Your task to perform on an android device: Open the stopwatch Image 0: 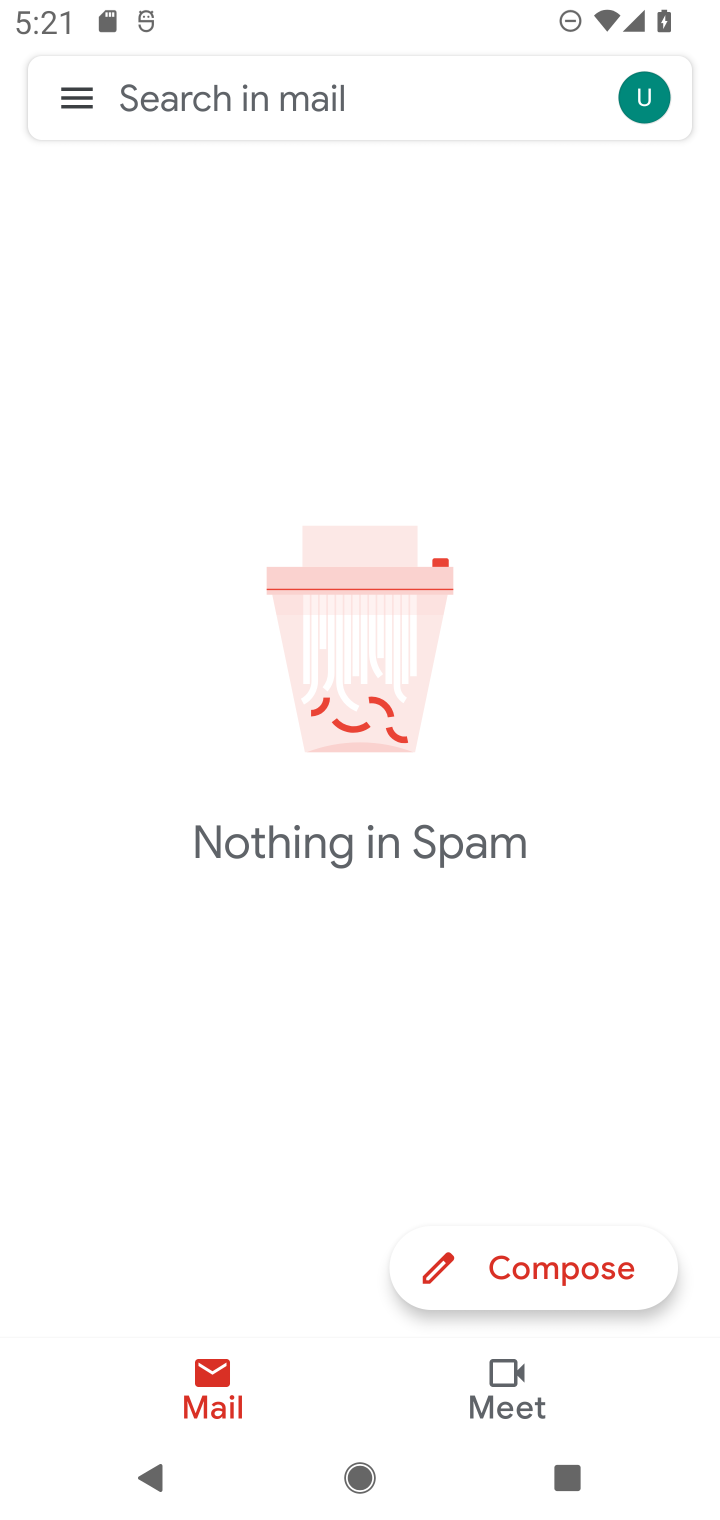
Step 0: press home button
Your task to perform on an android device: Open the stopwatch Image 1: 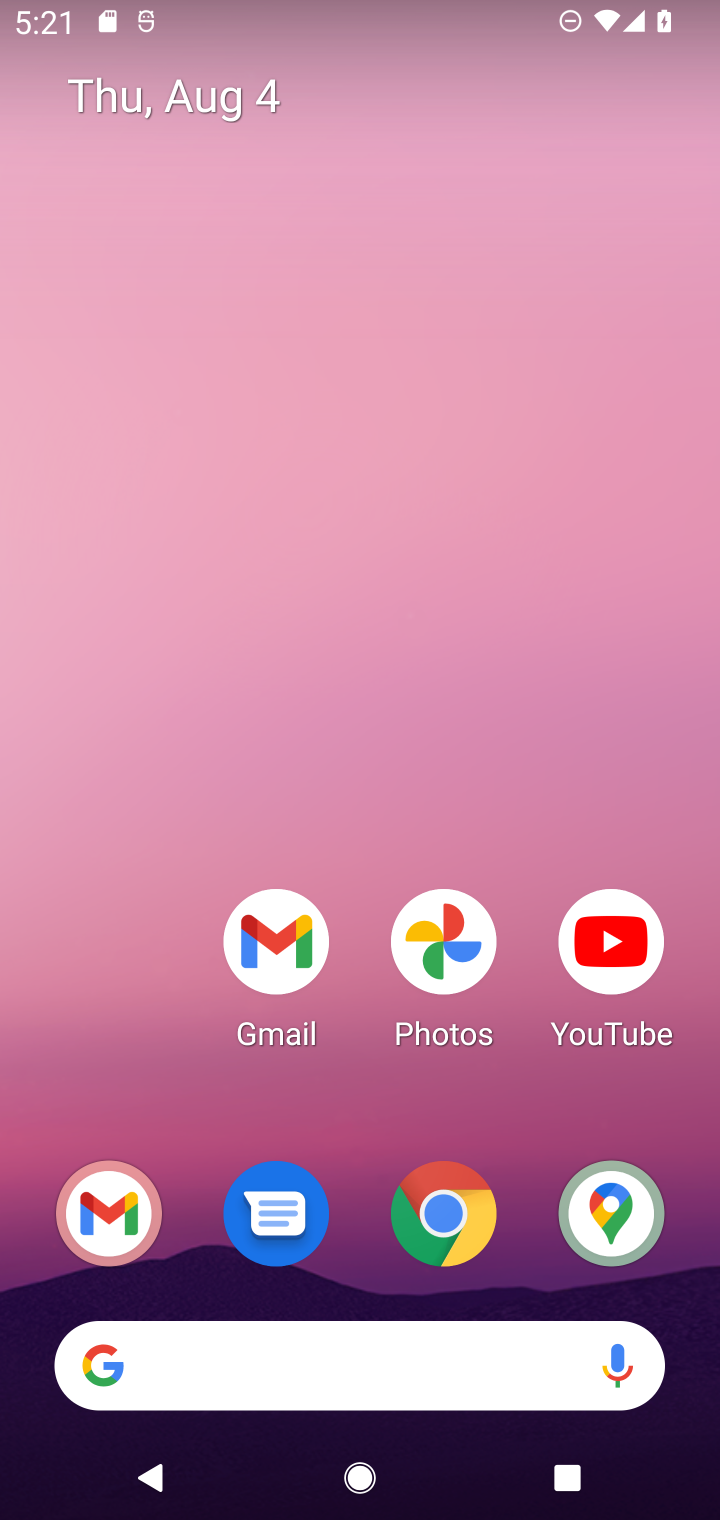
Step 1: drag from (178, 1161) to (229, 384)
Your task to perform on an android device: Open the stopwatch Image 2: 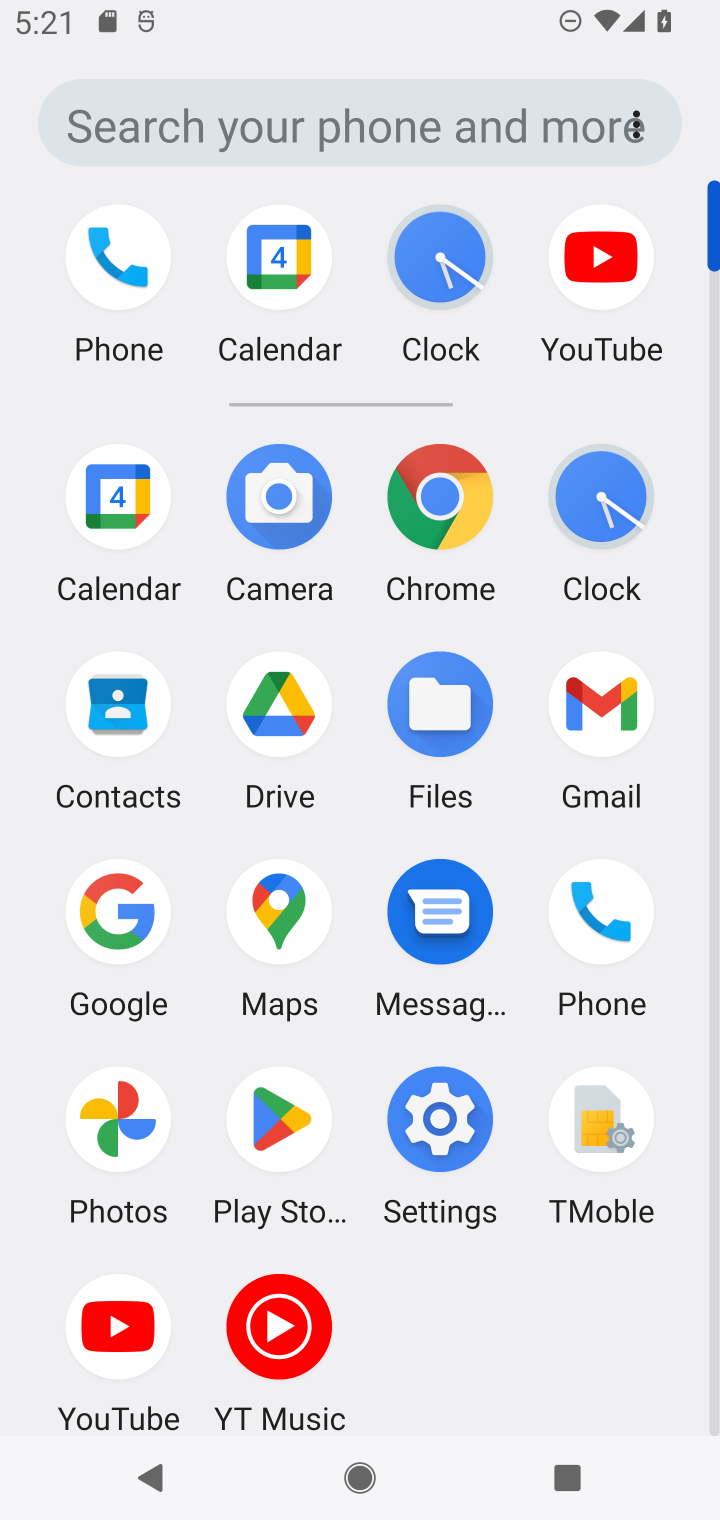
Step 2: click (591, 479)
Your task to perform on an android device: Open the stopwatch Image 3: 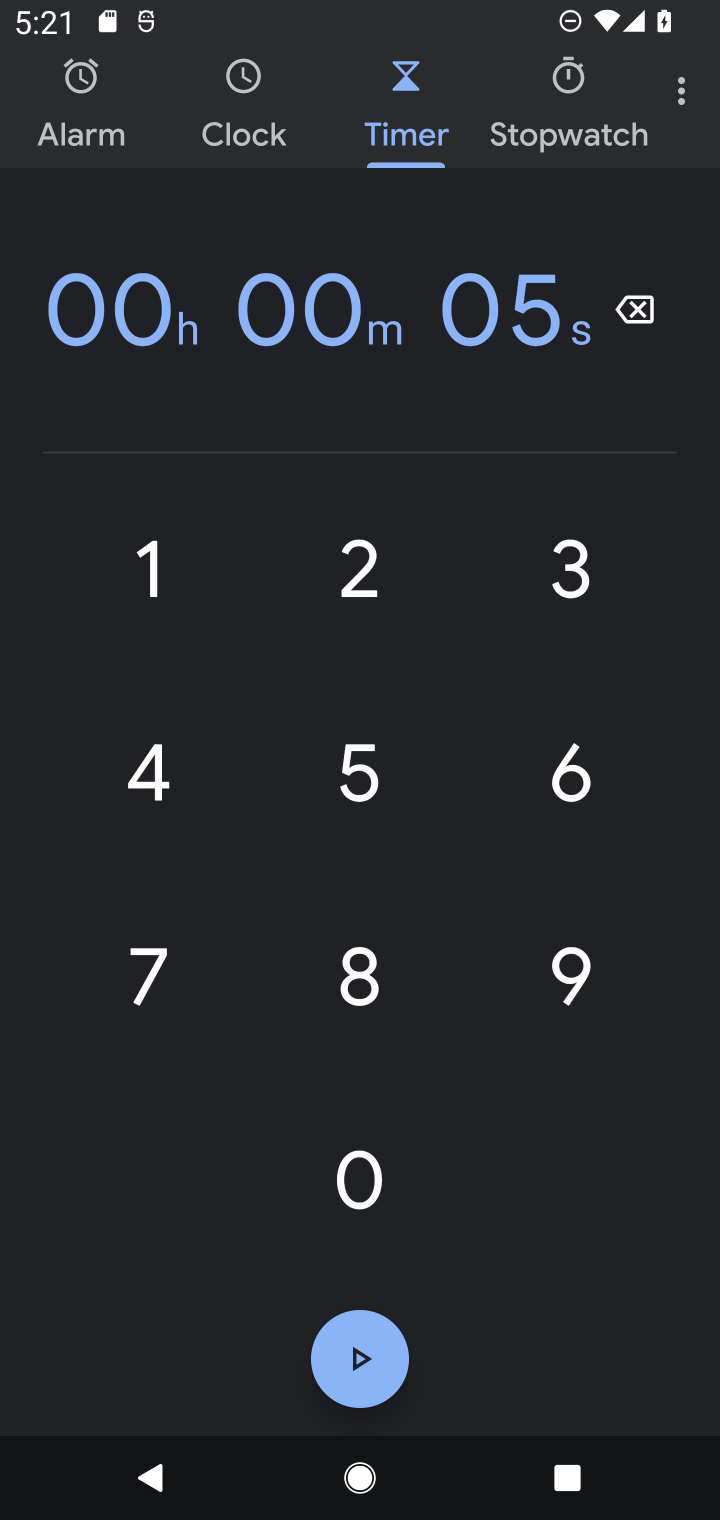
Step 3: click (563, 98)
Your task to perform on an android device: Open the stopwatch Image 4: 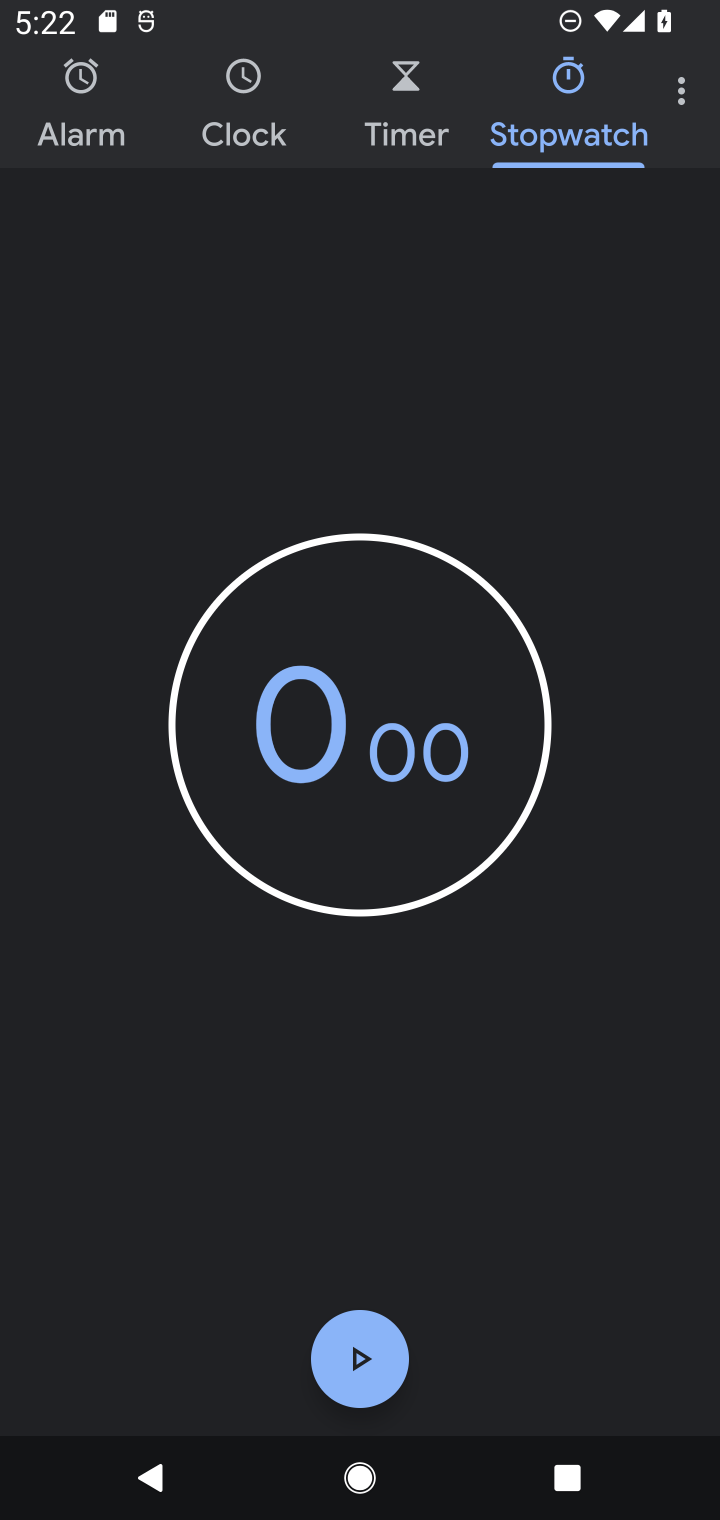
Step 4: task complete